Your task to perform on an android device: Open Chrome and go to the settings page Image 0: 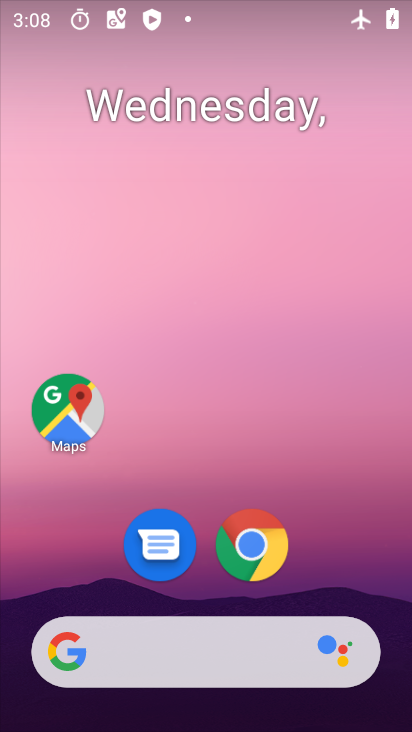
Step 0: drag from (346, 565) to (350, 194)
Your task to perform on an android device: Open Chrome and go to the settings page Image 1: 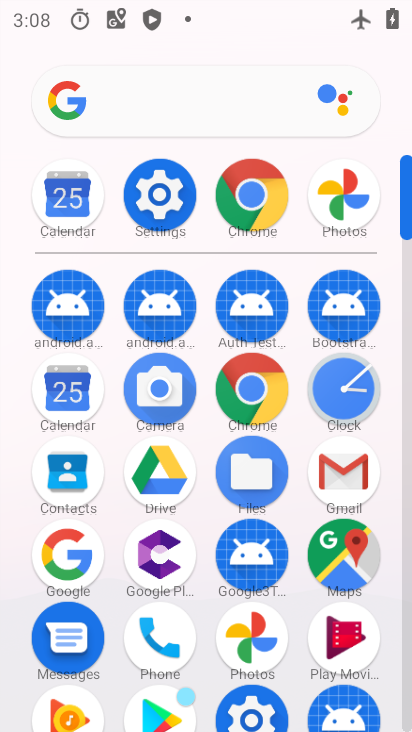
Step 1: click (250, 379)
Your task to perform on an android device: Open Chrome and go to the settings page Image 2: 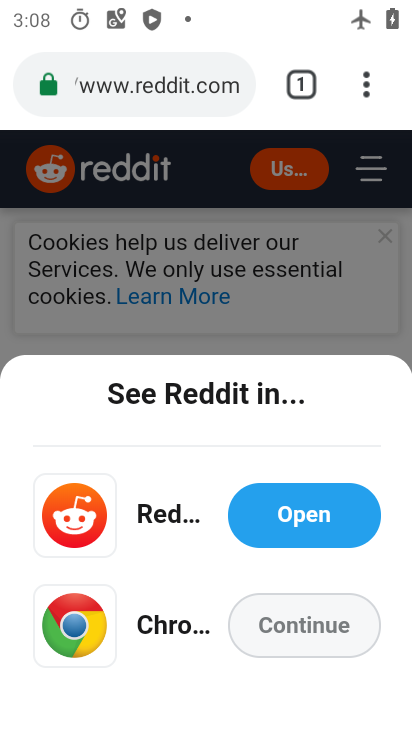
Step 2: task complete